Your task to perform on an android device: toggle improve location accuracy Image 0: 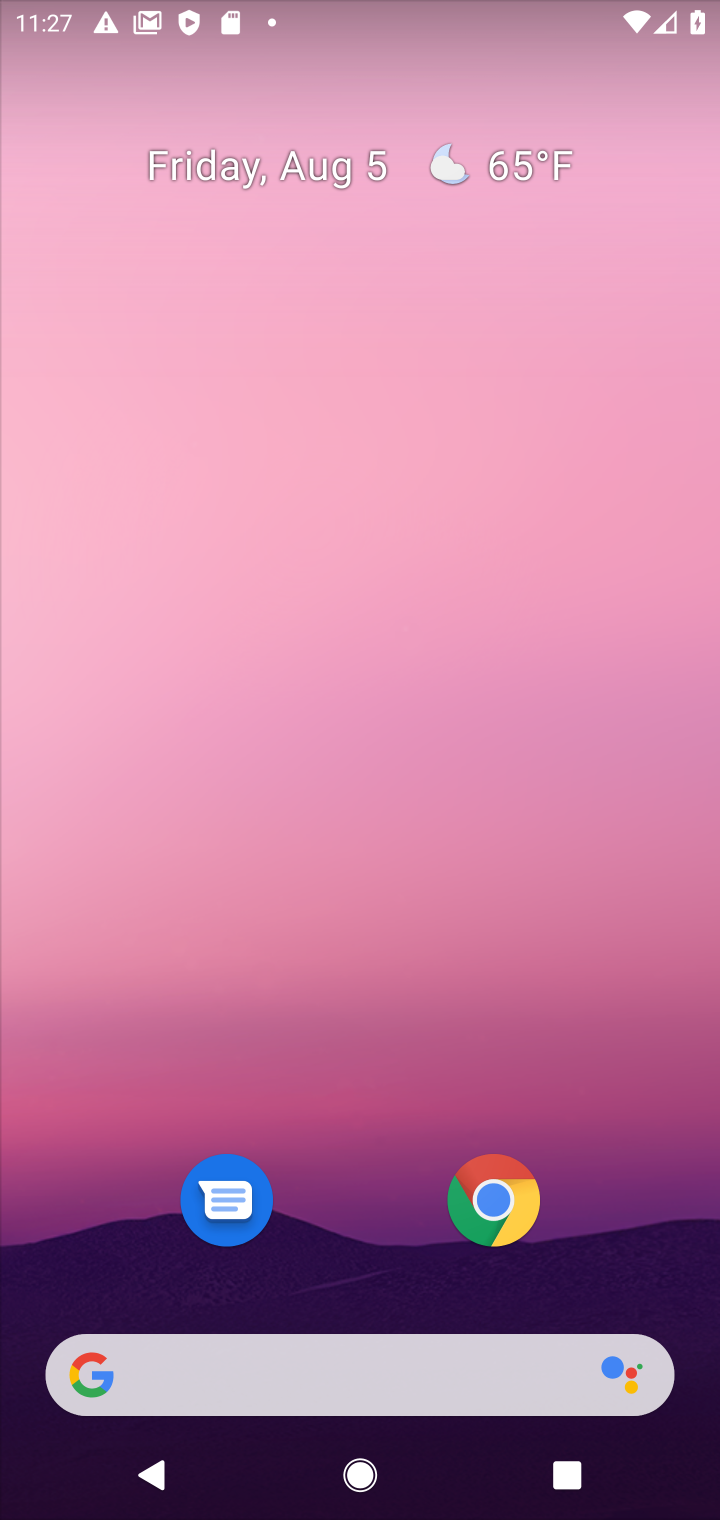
Step 0: drag from (605, 840) to (610, 270)
Your task to perform on an android device: toggle improve location accuracy Image 1: 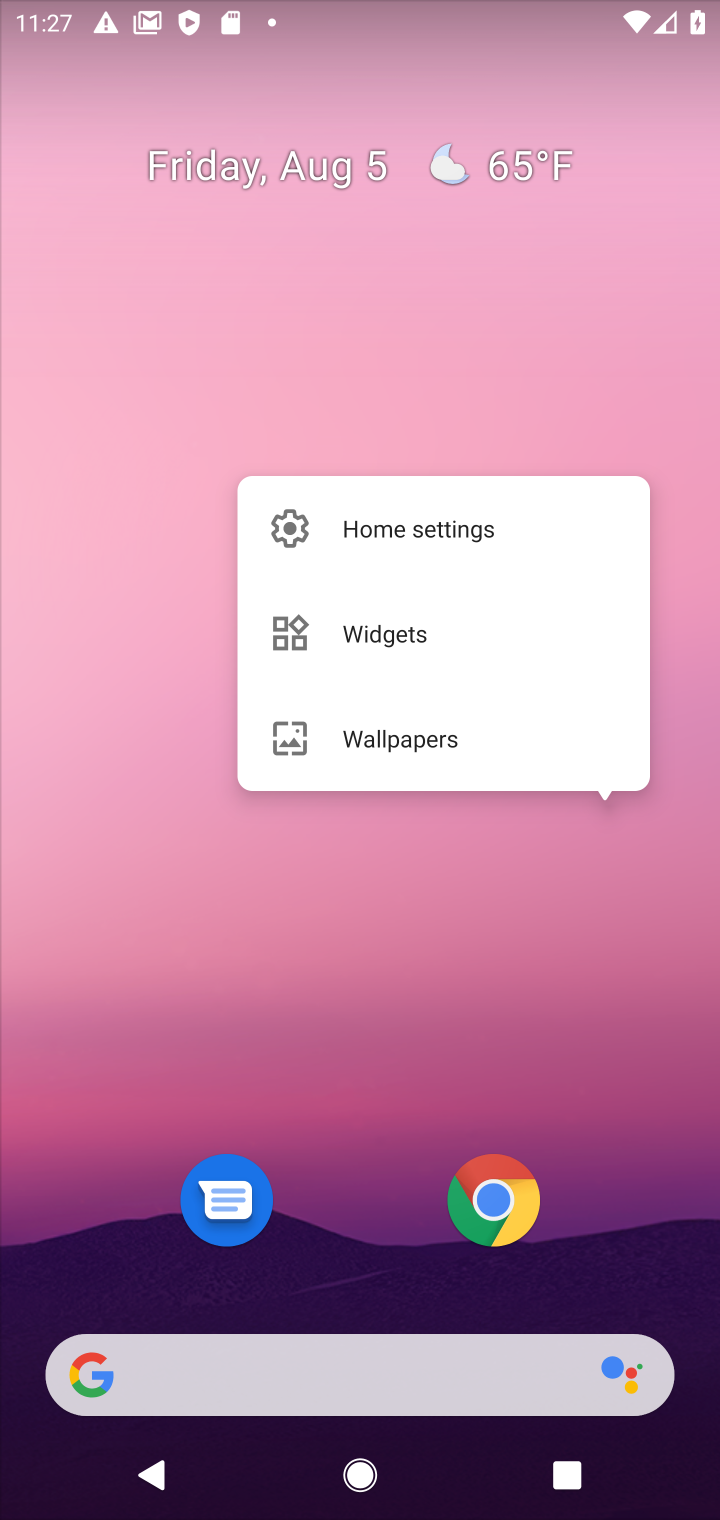
Step 1: drag from (663, 1248) to (570, 146)
Your task to perform on an android device: toggle improve location accuracy Image 2: 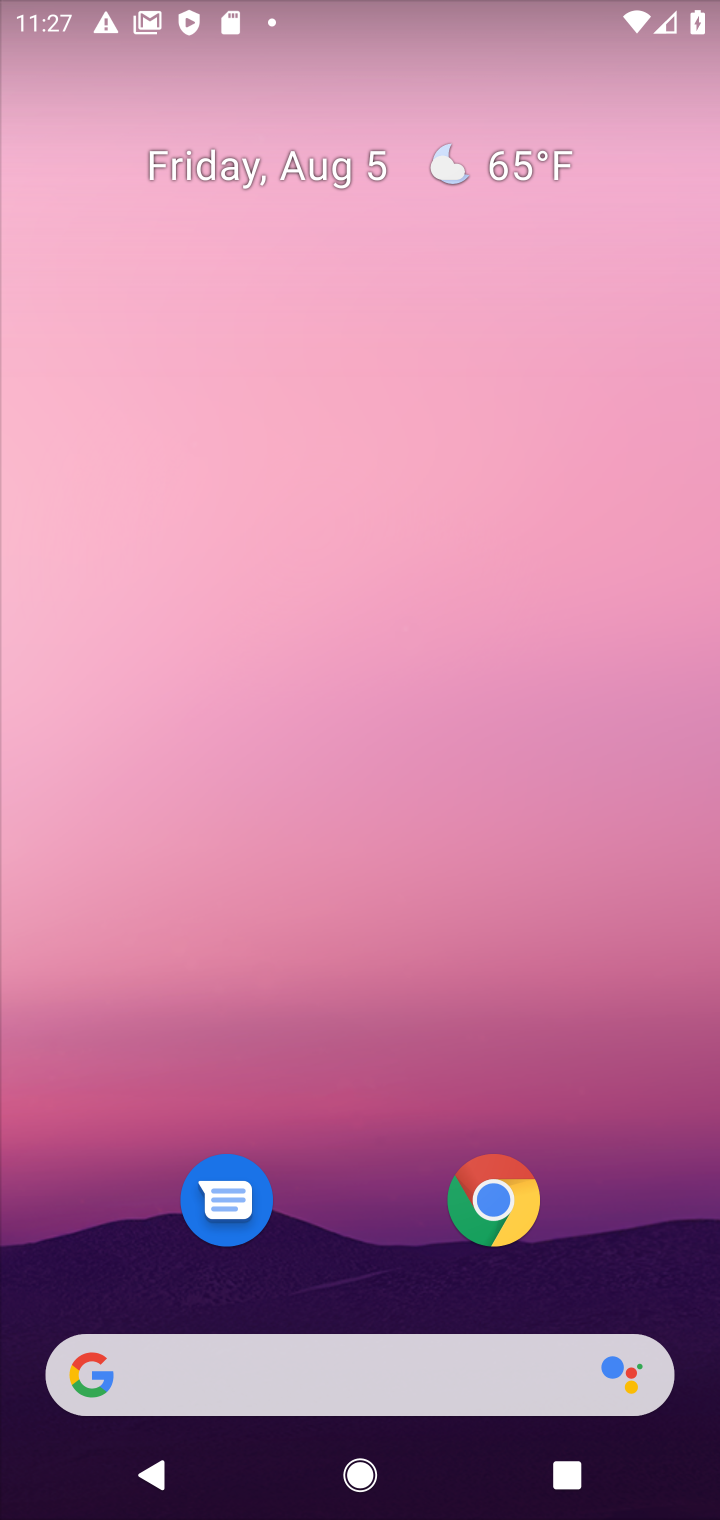
Step 2: drag from (644, 1267) to (606, 186)
Your task to perform on an android device: toggle improve location accuracy Image 3: 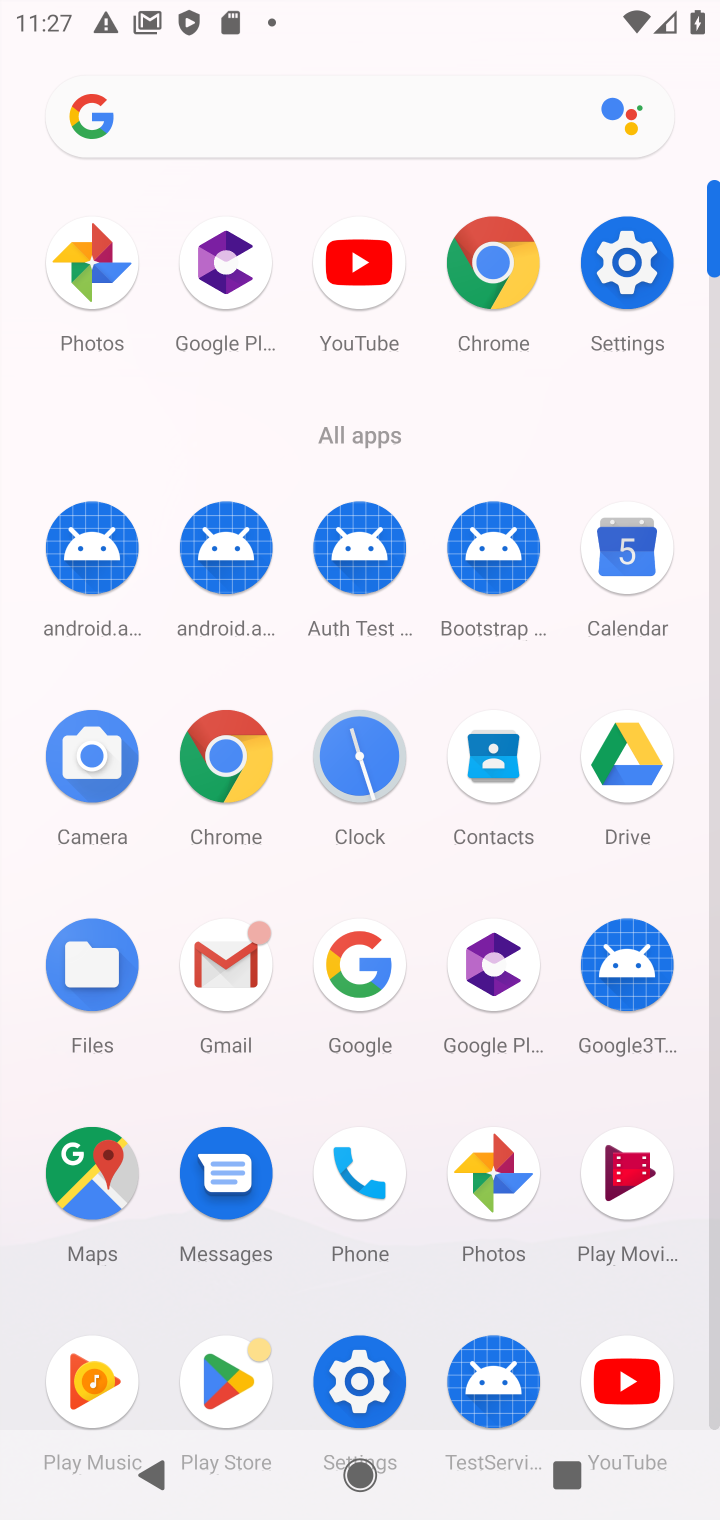
Step 3: click (366, 1381)
Your task to perform on an android device: toggle improve location accuracy Image 4: 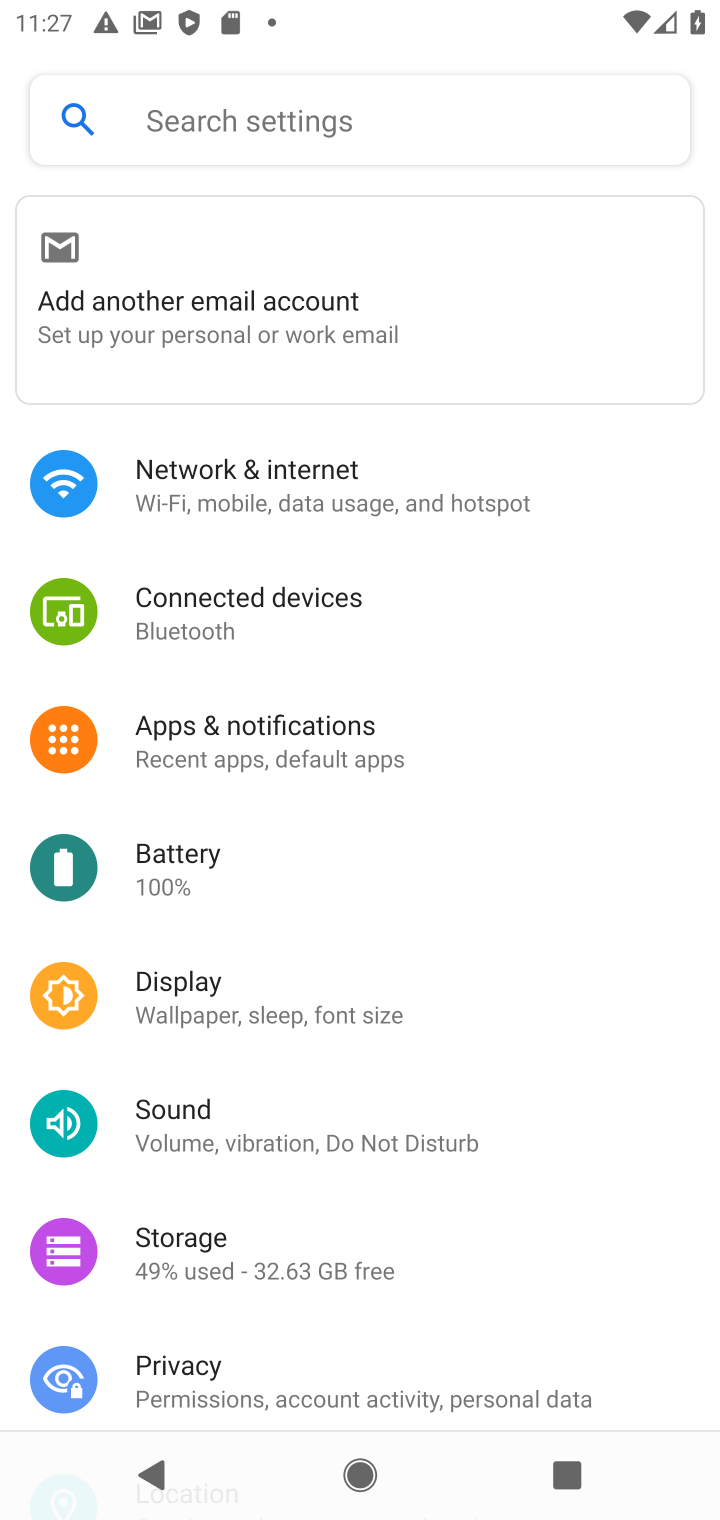
Step 4: drag from (623, 1274) to (580, 502)
Your task to perform on an android device: toggle improve location accuracy Image 5: 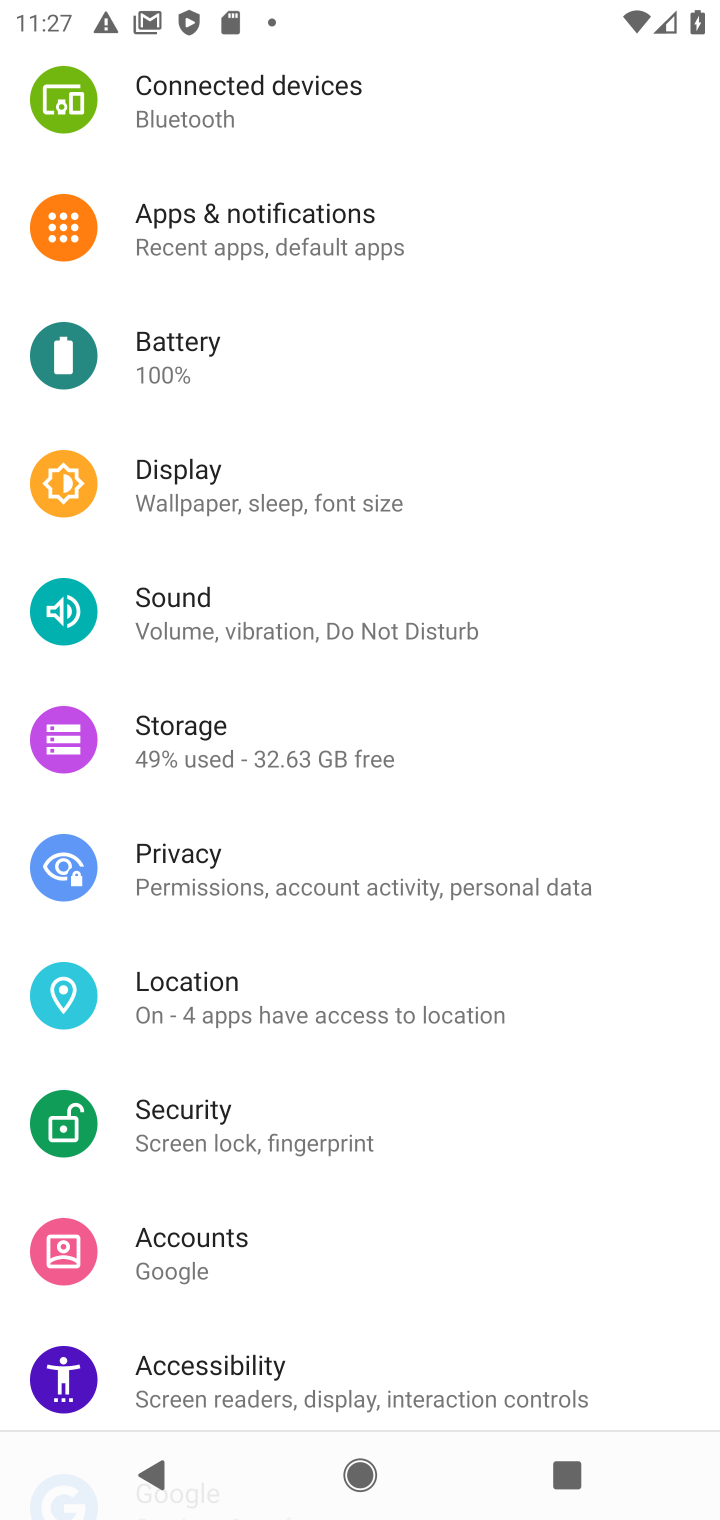
Step 5: click (204, 1008)
Your task to perform on an android device: toggle improve location accuracy Image 6: 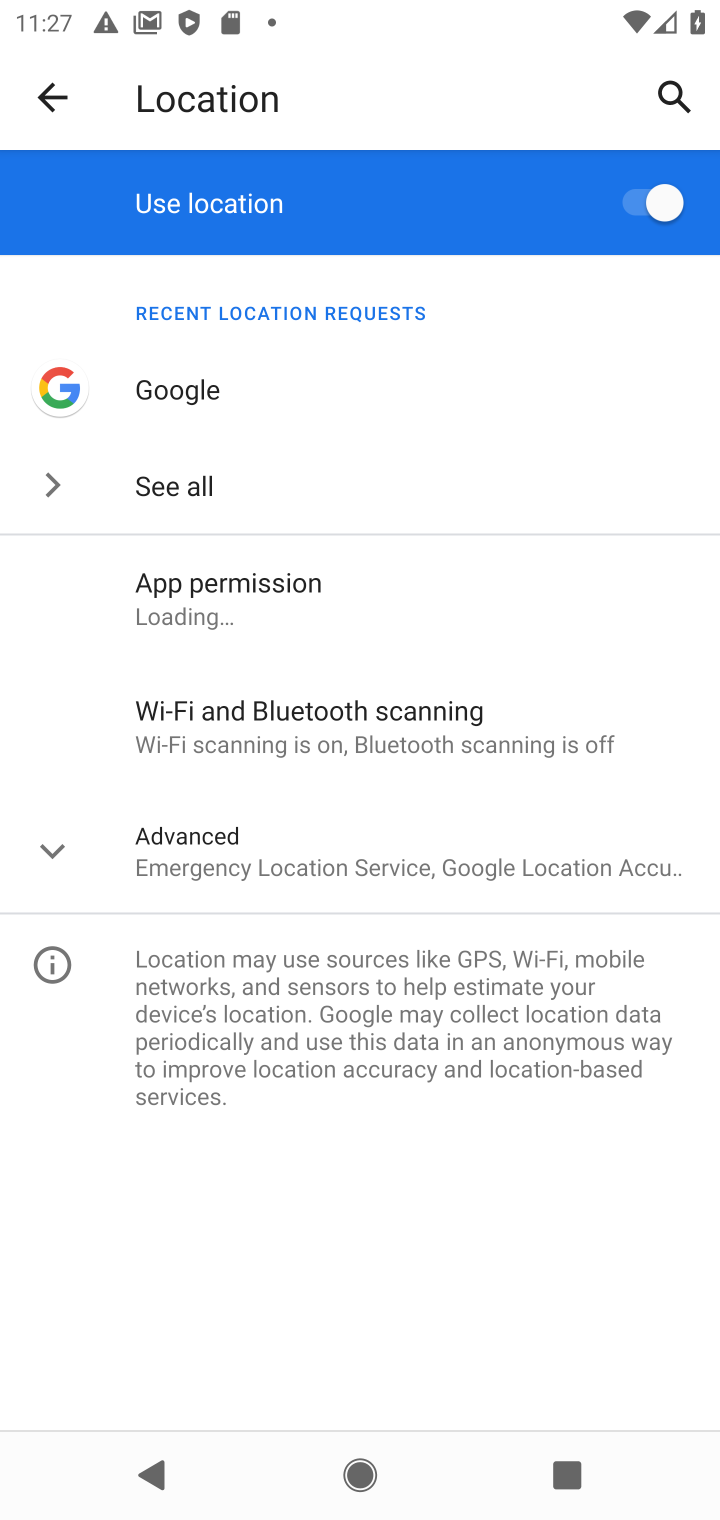
Step 6: click (53, 858)
Your task to perform on an android device: toggle improve location accuracy Image 7: 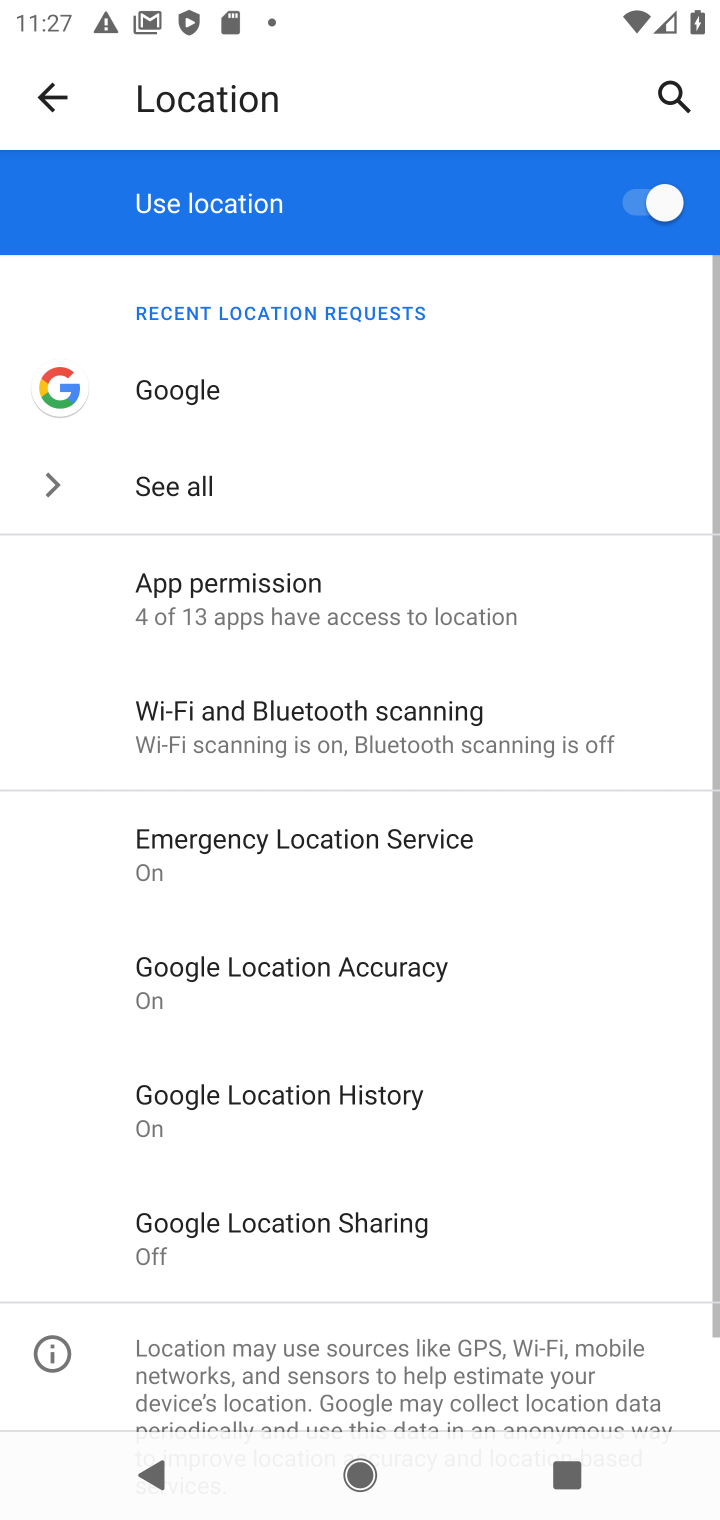
Step 7: click (277, 970)
Your task to perform on an android device: toggle improve location accuracy Image 8: 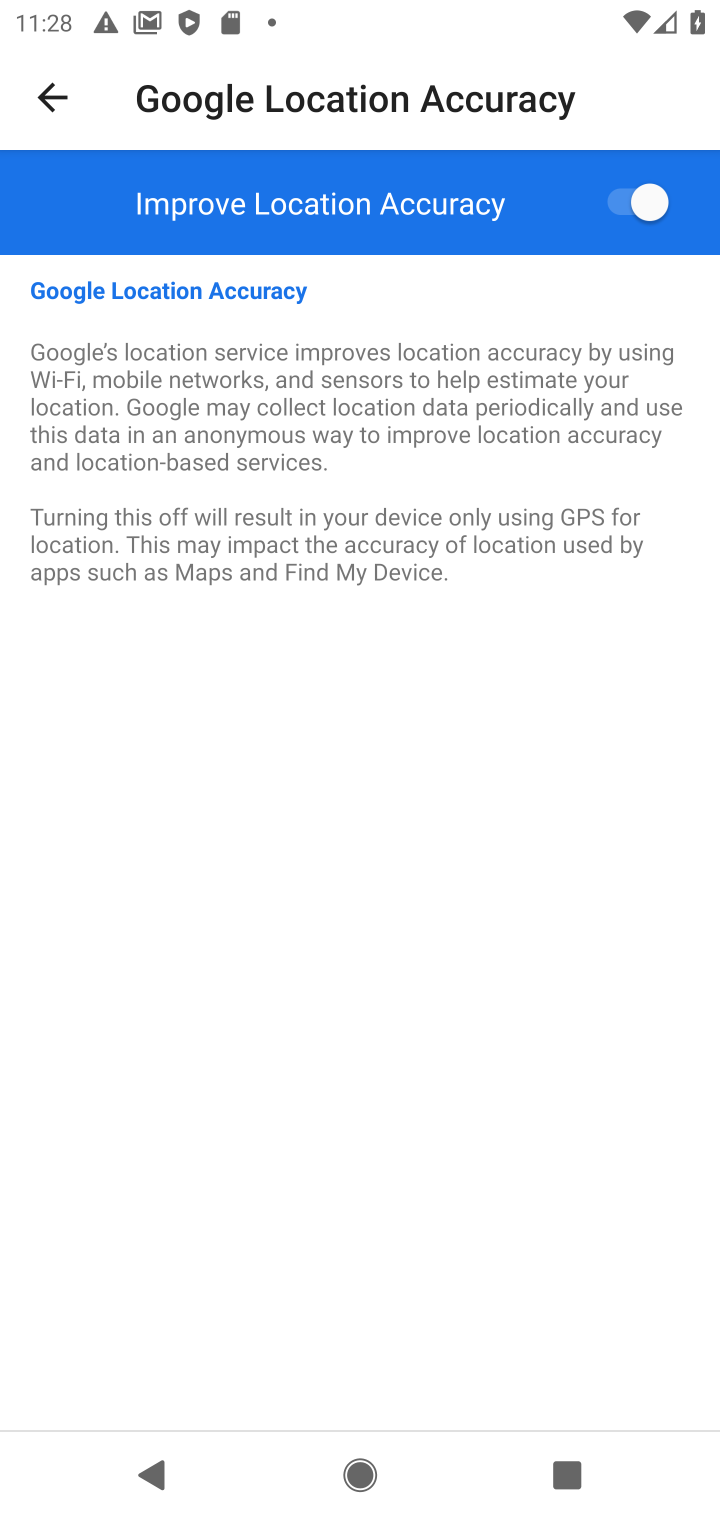
Step 8: click (610, 196)
Your task to perform on an android device: toggle improve location accuracy Image 9: 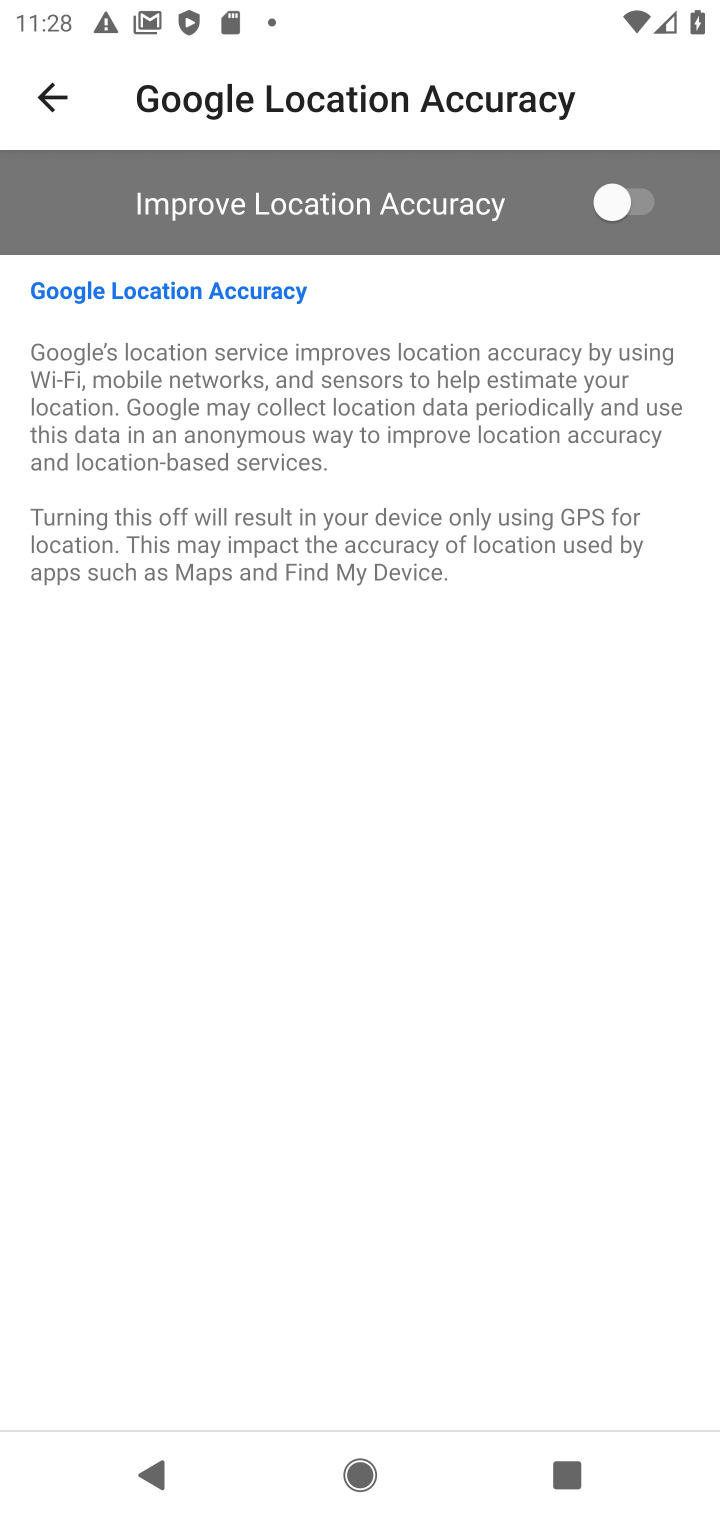
Step 9: task complete